Your task to perform on an android device: open app "Firefox Browser" (install if not already installed) and enter user name: "hashed@outlook.com" and password: "congestive" Image 0: 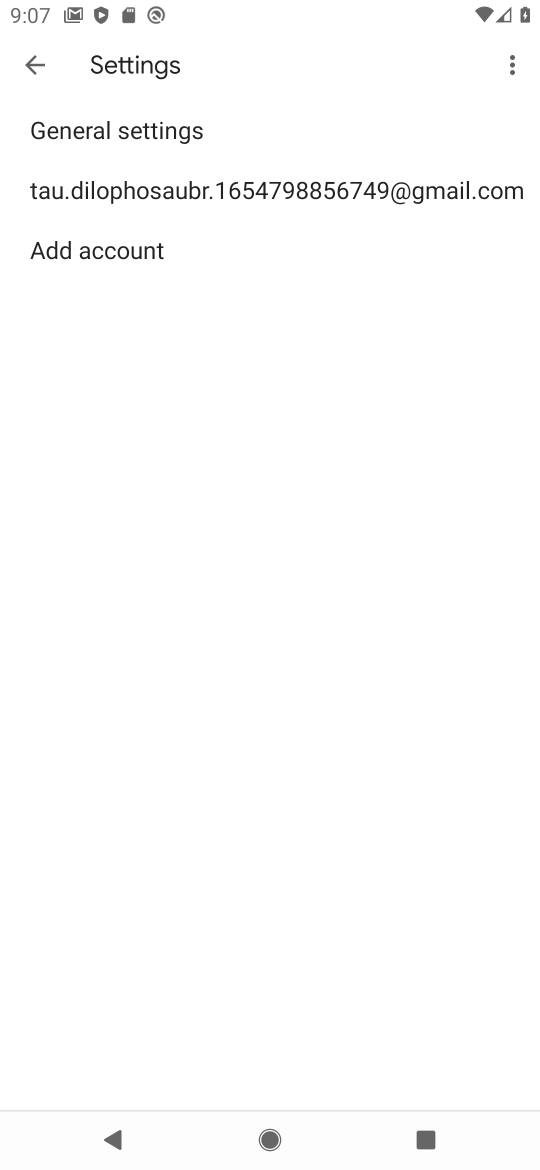
Step 0: press back button
Your task to perform on an android device: open app "Firefox Browser" (install if not already installed) and enter user name: "hashed@outlook.com" and password: "congestive" Image 1: 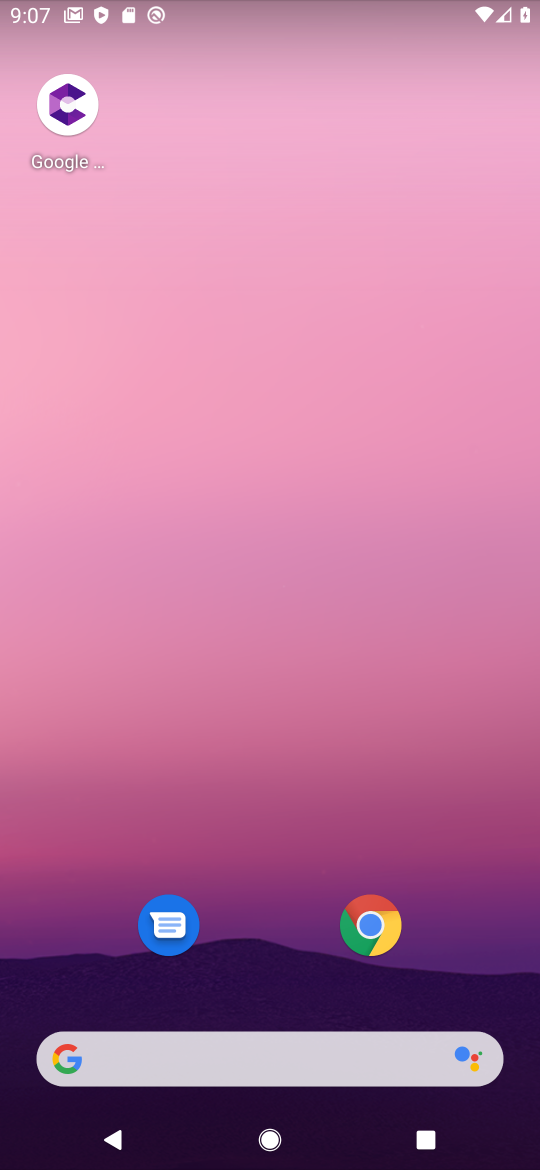
Step 1: drag from (232, 993) to (296, 0)
Your task to perform on an android device: open app "Firefox Browser" (install if not already installed) and enter user name: "hashed@outlook.com" and password: "congestive" Image 2: 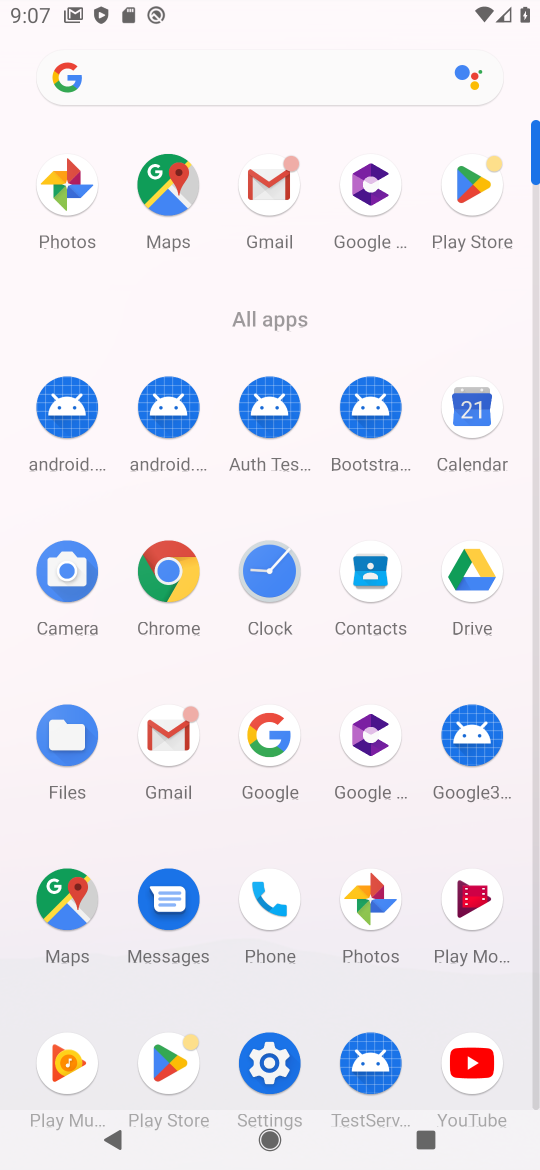
Step 2: click (477, 194)
Your task to perform on an android device: open app "Firefox Browser" (install if not already installed) and enter user name: "hashed@outlook.com" and password: "congestive" Image 3: 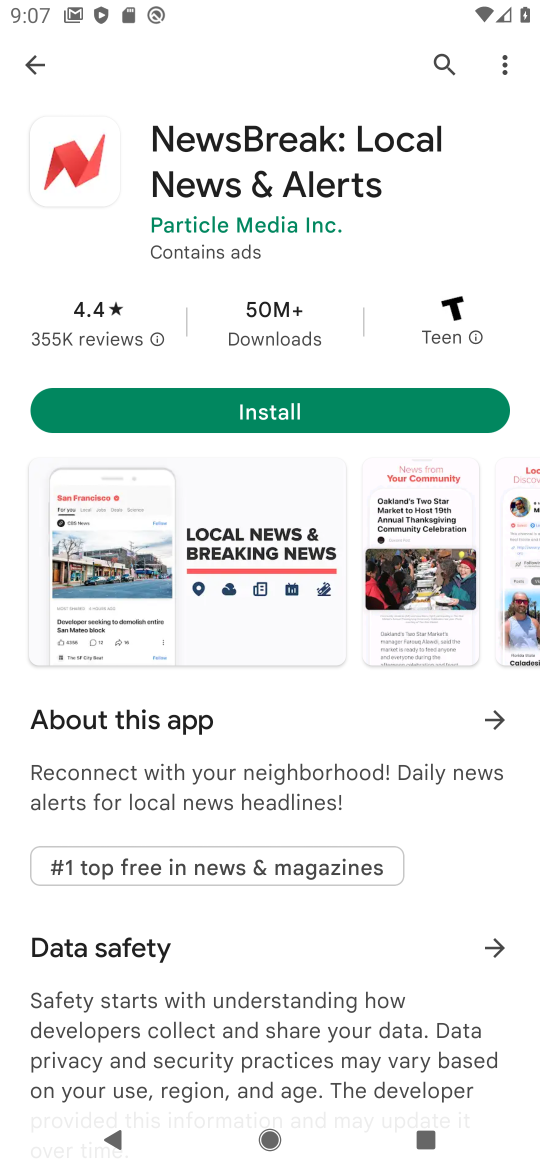
Step 3: click (453, 60)
Your task to perform on an android device: open app "Firefox Browser" (install if not already installed) and enter user name: "hashed@outlook.com" and password: "congestive" Image 4: 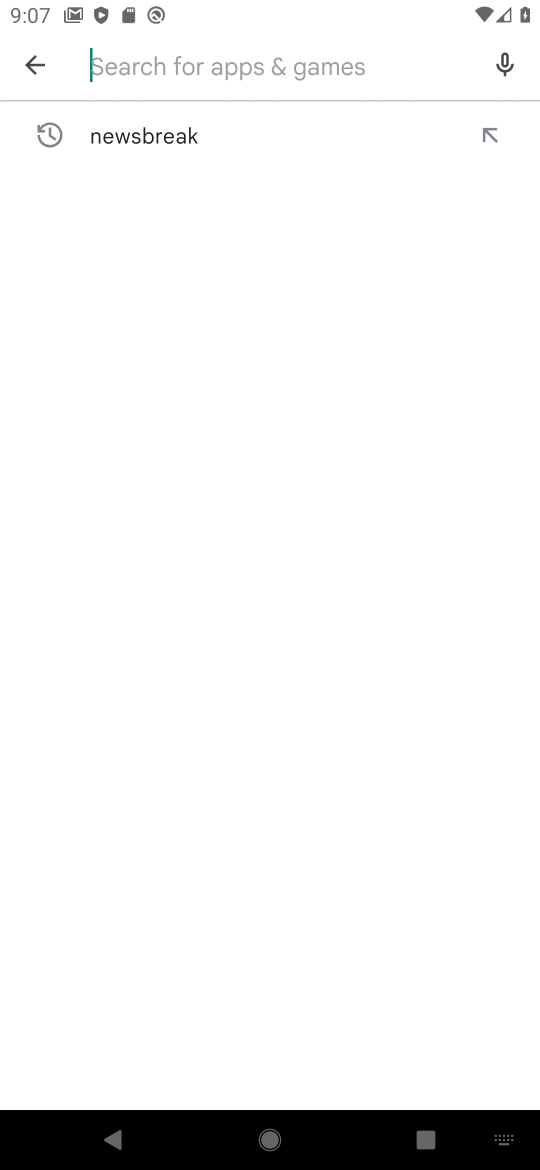
Step 4: click (213, 70)
Your task to perform on an android device: open app "Firefox Browser" (install if not already installed) and enter user name: "hashed@outlook.com" and password: "congestive" Image 5: 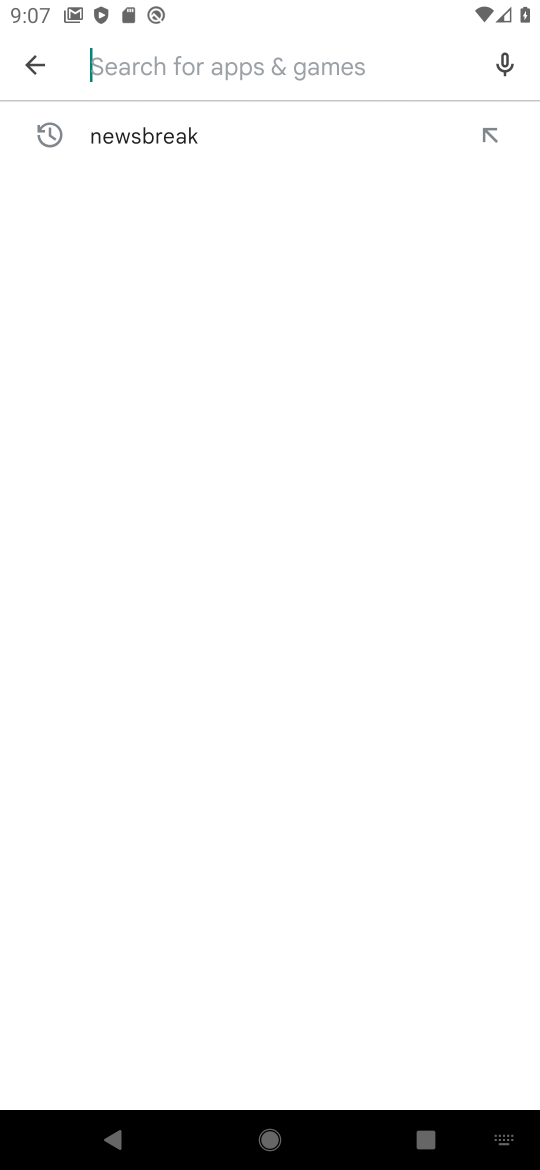
Step 5: click (189, 53)
Your task to perform on an android device: open app "Firefox Browser" (install if not already installed) and enter user name: "hashed@outlook.com" and password: "congestive" Image 6: 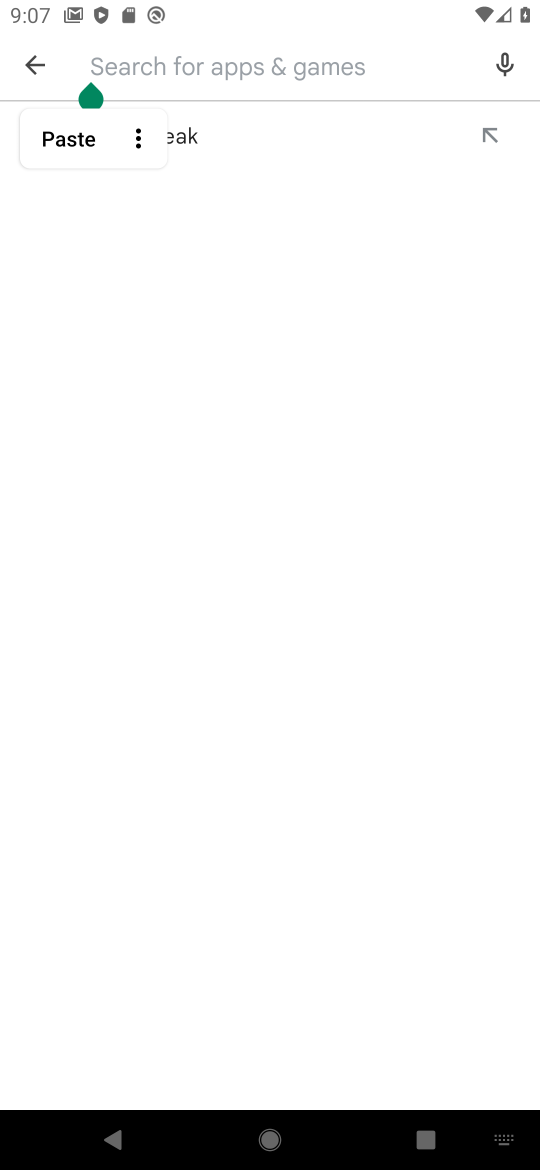
Step 6: type "Firefox Browser"
Your task to perform on an android device: open app "Firefox Browser" (install if not already installed) and enter user name: "hashed@outlook.com" and password: "congestive" Image 7: 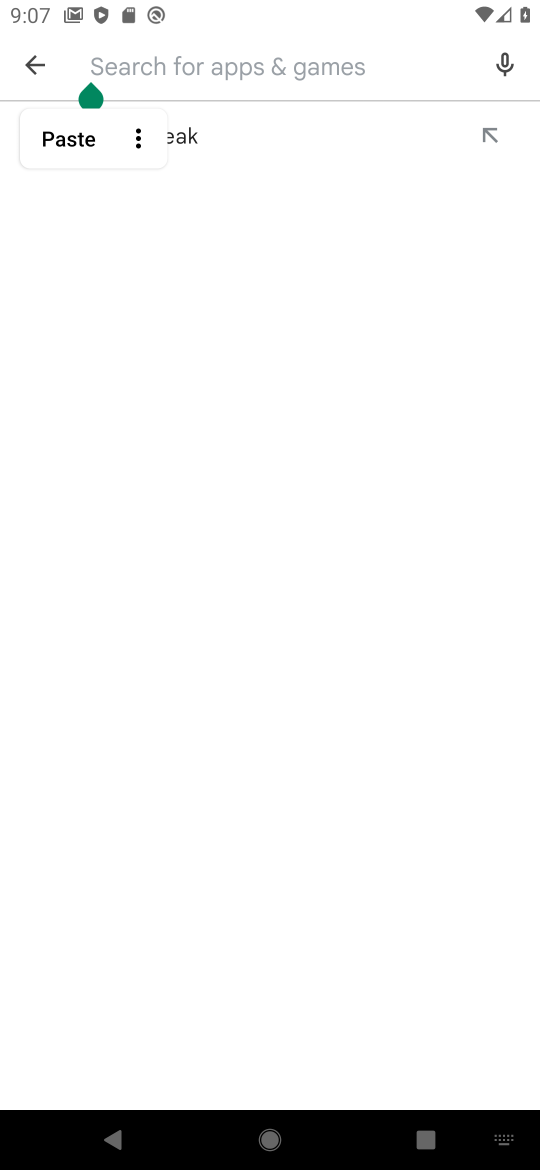
Step 7: click (307, 608)
Your task to perform on an android device: open app "Firefox Browser" (install if not already installed) and enter user name: "hashed@outlook.com" and password: "congestive" Image 8: 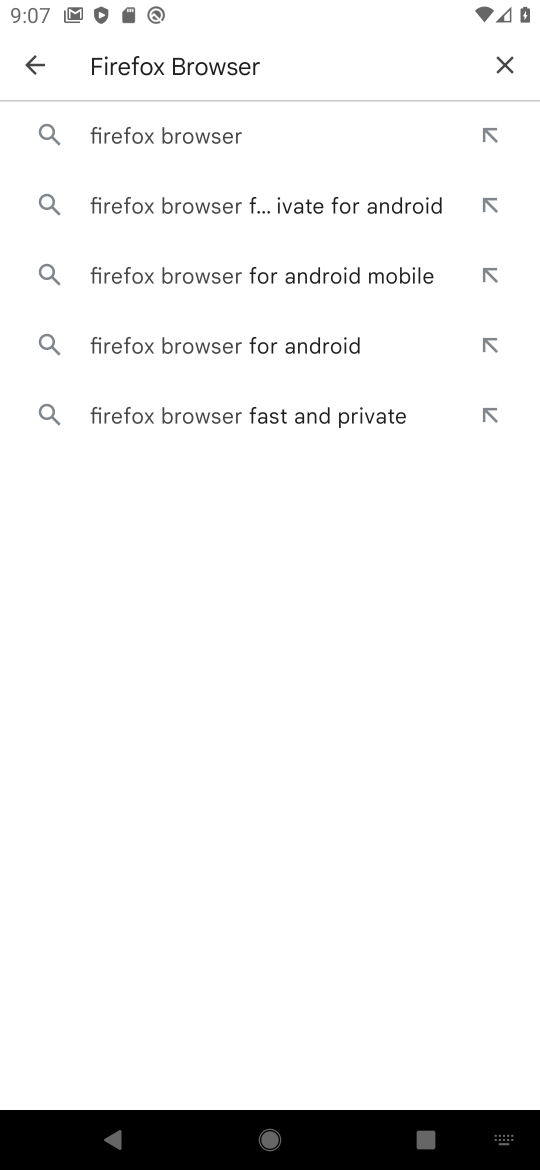
Step 8: click (189, 117)
Your task to perform on an android device: open app "Firefox Browser" (install if not already installed) and enter user name: "hashed@outlook.com" and password: "congestive" Image 9: 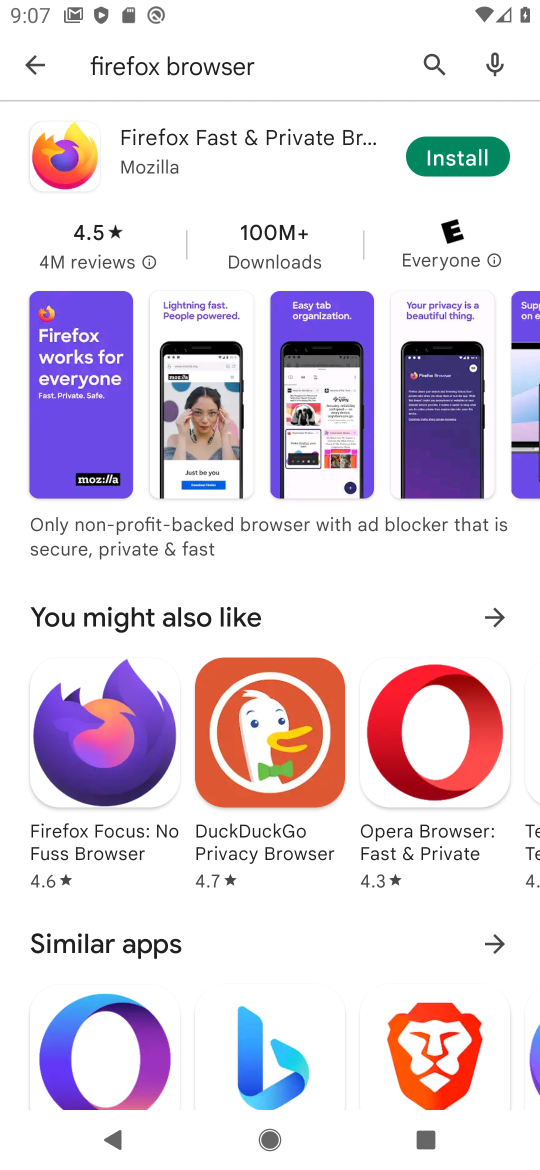
Step 9: click (438, 165)
Your task to perform on an android device: open app "Firefox Browser" (install if not already installed) and enter user name: "hashed@outlook.com" and password: "congestive" Image 10: 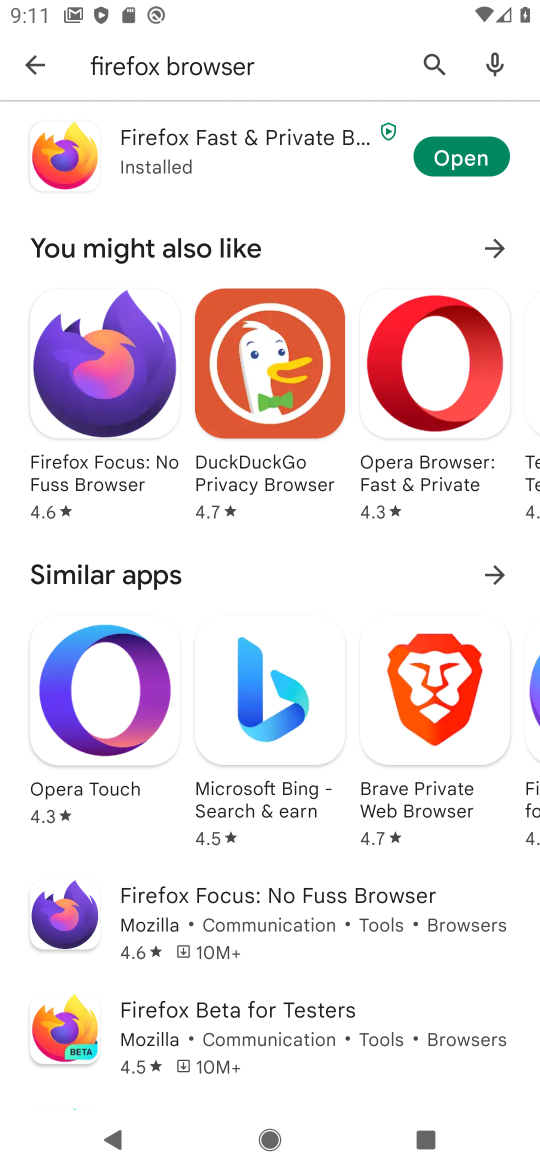
Step 10: click (460, 140)
Your task to perform on an android device: open app "Firefox Browser" (install if not already installed) and enter user name: "hashed@outlook.com" and password: "congestive" Image 11: 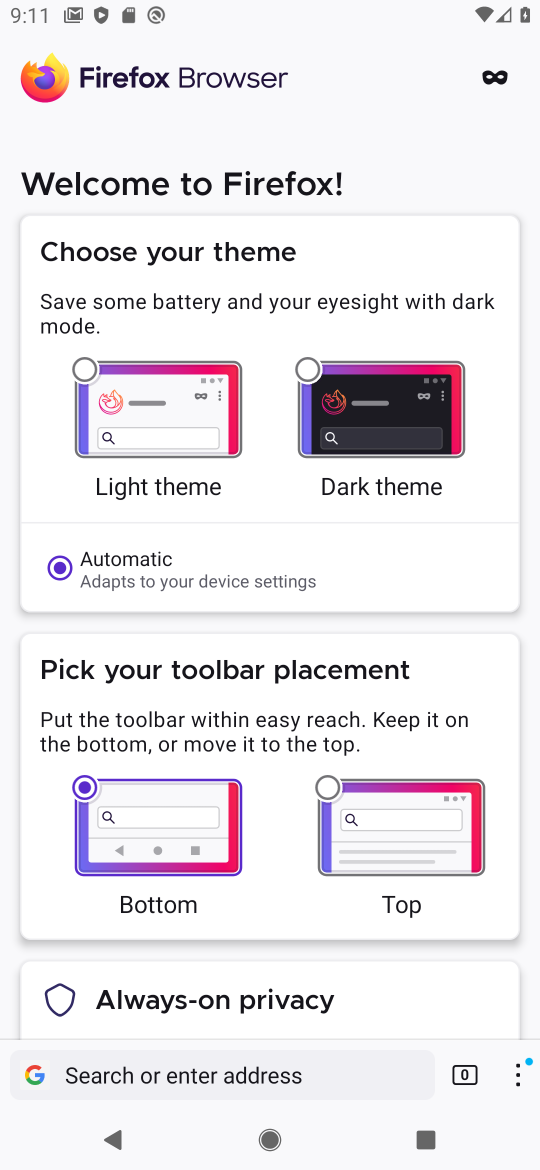
Step 11: task complete